Your task to perform on an android device: change the clock display to analog Image 0: 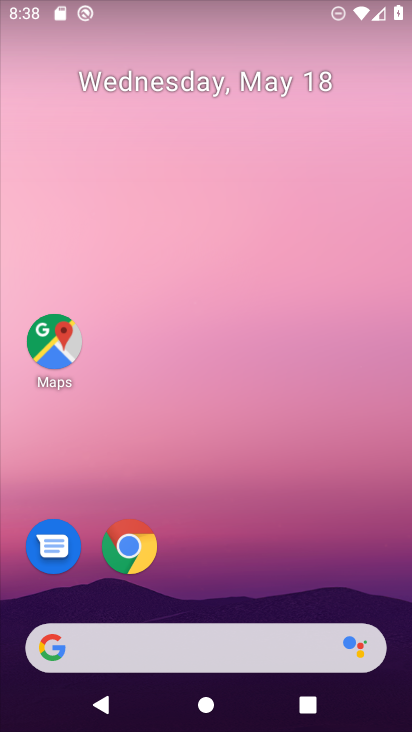
Step 0: drag from (251, 663) to (370, 227)
Your task to perform on an android device: change the clock display to analog Image 1: 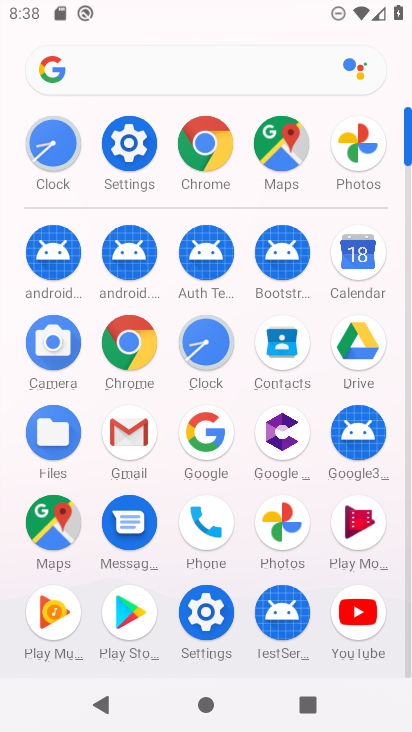
Step 1: click (199, 343)
Your task to perform on an android device: change the clock display to analog Image 2: 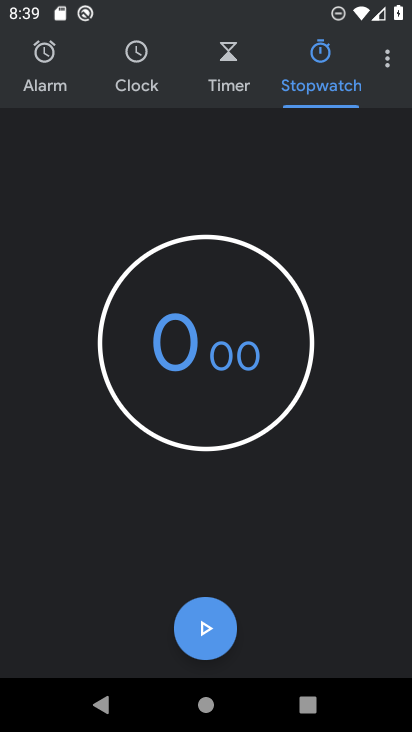
Step 2: click (375, 67)
Your task to perform on an android device: change the clock display to analog Image 3: 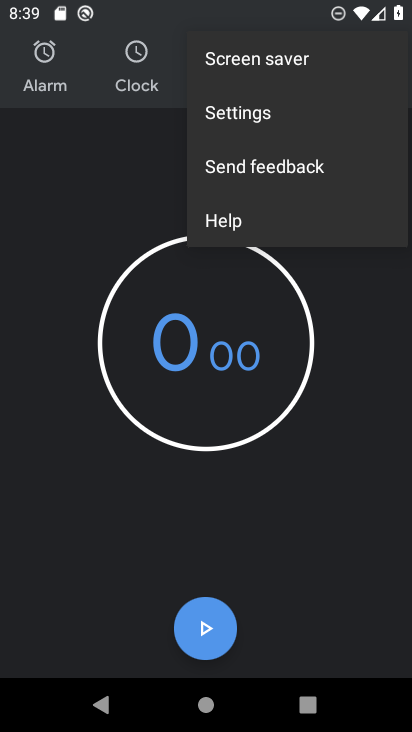
Step 3: click (243, 114)
Your task to perform on an android device: change the clock display to analog Image 4: 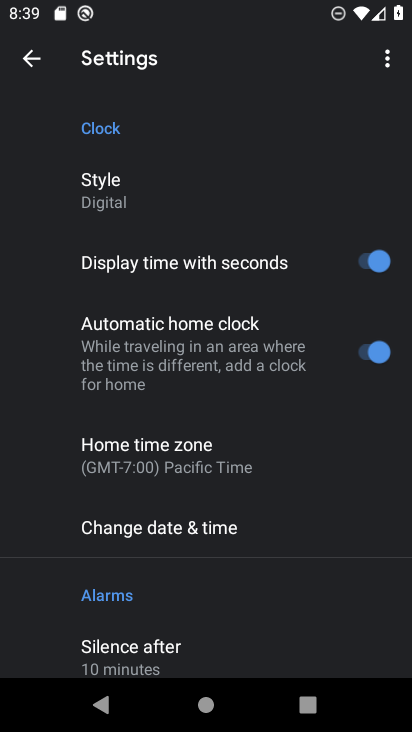
Step 4: click (139, 201)
Your task to perform on an android device: change the clock display to analog Image 5: 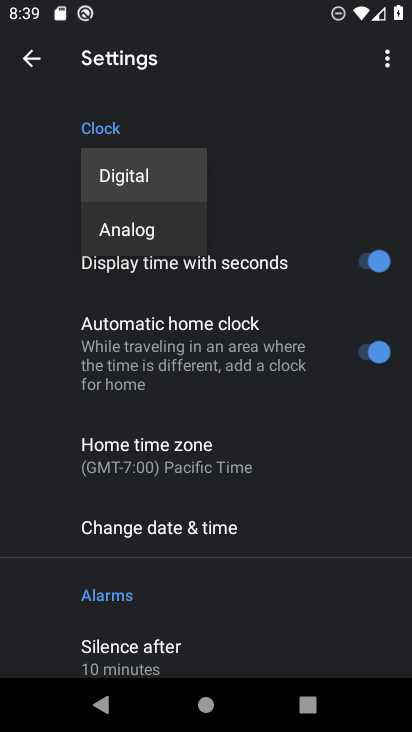
Step 5: click (124, 231)
Your task to perform on an android device: change the clock display to analog Image 6: 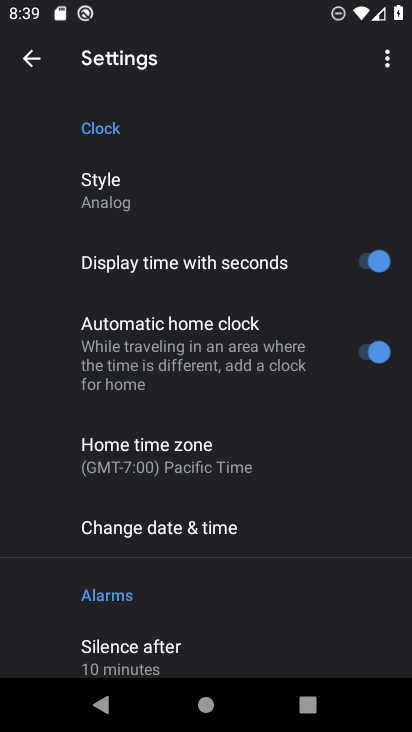
Step 6: task complete